Your task to perform on an android device: delete the emails in spam in the gmail app Image 0: 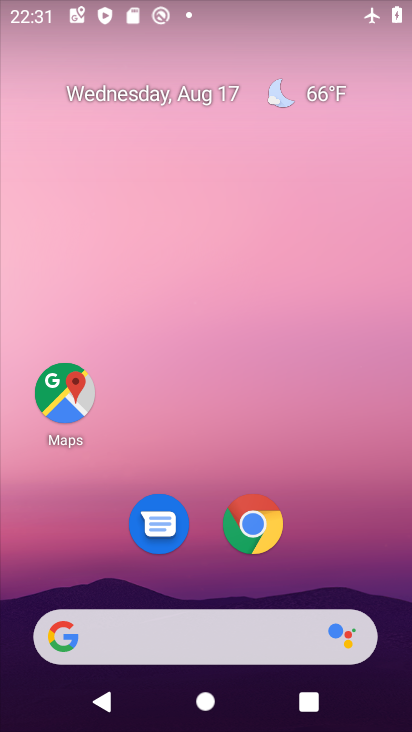
Step 0: drag from (325, 512) to (376, 6)
Your task to perform on an android device: delete the emails in spam in the gmail app Image 1: 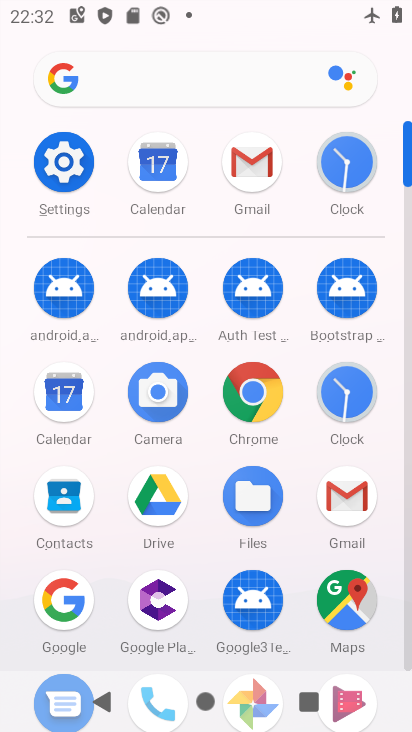
Step 1: click (260, 162)
Your task to perform on an android device: delete the emails in spam in the gmail app Image 2: 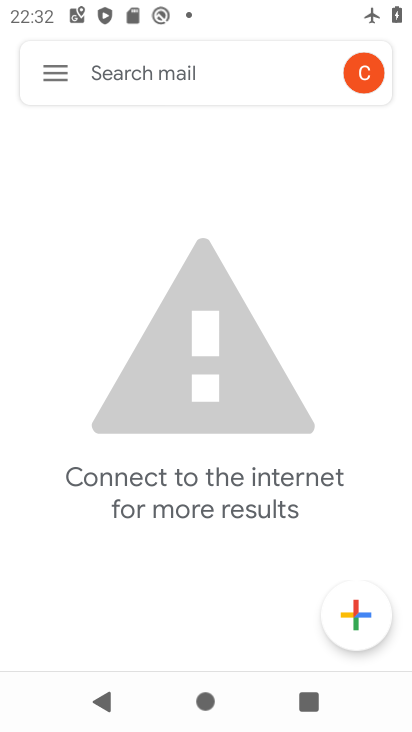
Step 2: click (64, 72)
Your task to perform on an android device: delete the emails in spam in the gmail app Image 3: 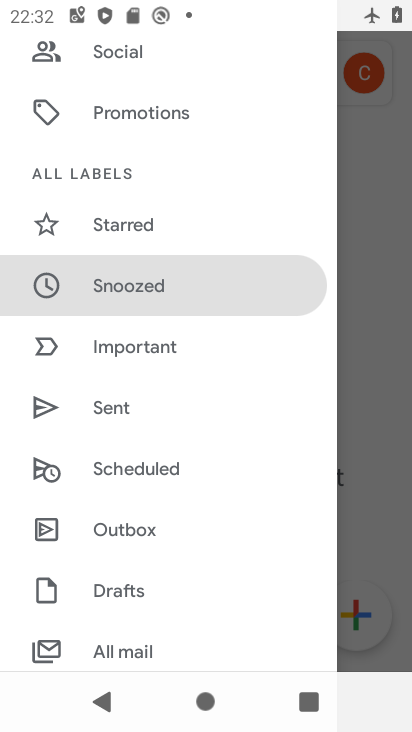
Step 3: drag from (105, 571) to (160, 87)
Your task to perform on an android device: delete the emails in spam in the gmail app Image 4: 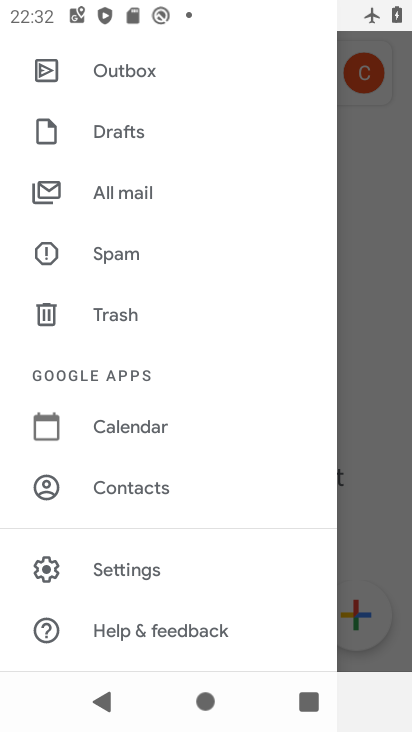
Step 4: click (148, 253)
Your task to perform on an android device: delete the emails in spam in the gmail app Image 5: 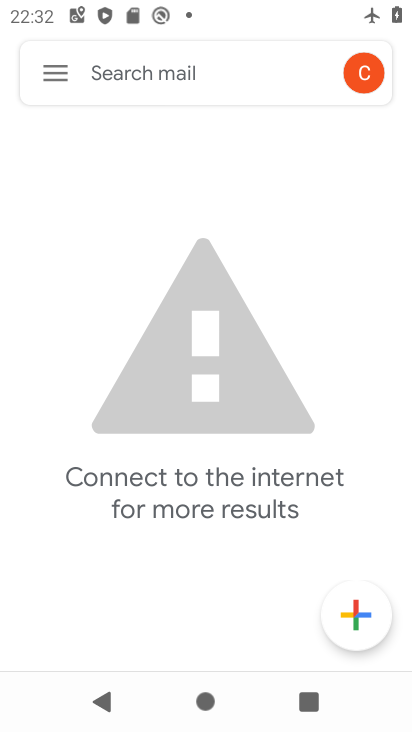
Step 5: task complete